Your task to perform on an android device: toggle translation in the chrome app Image 0: 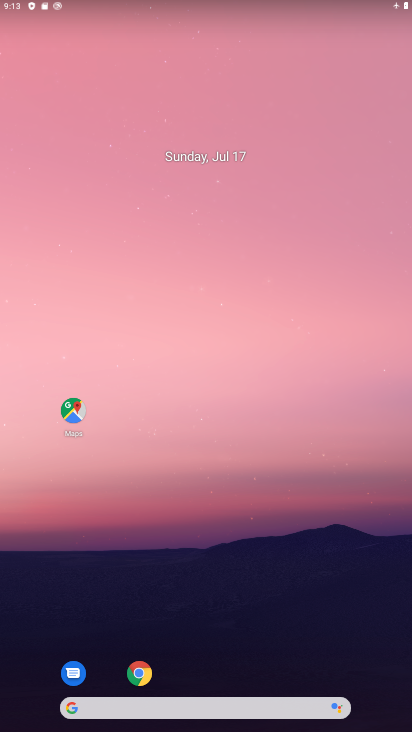
Step 0: click (140, 673)
Your task to perform on an android device: toggle translation in the chrome app Image 1: 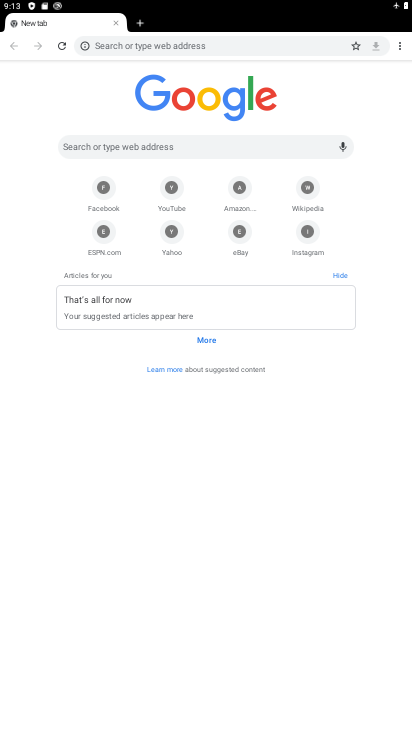
Step 1: click (403, 49)
Your task to perform on an android device: toggle translation in the chrome app Image 2: 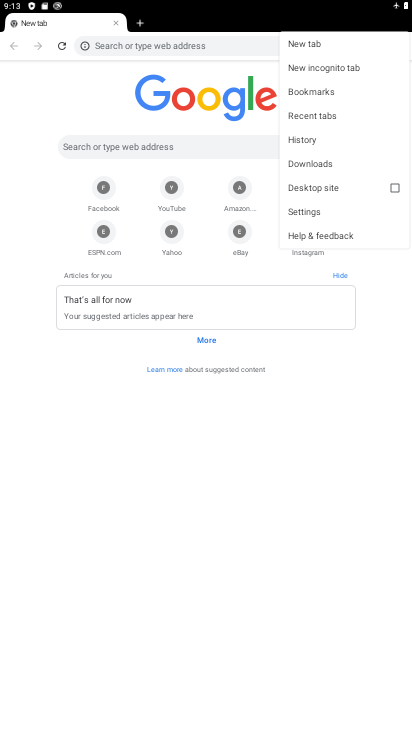
Step 2: click (301, 210)
Your task to perform on an android device: toggle translation in the chrome app Image 3: 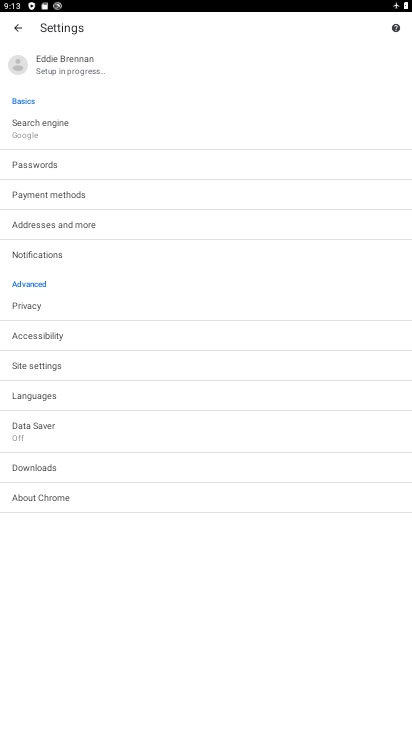
Step 3: click (17, 396)
Your task to perform on an android device: toggle translation in the chrome app Image 4: 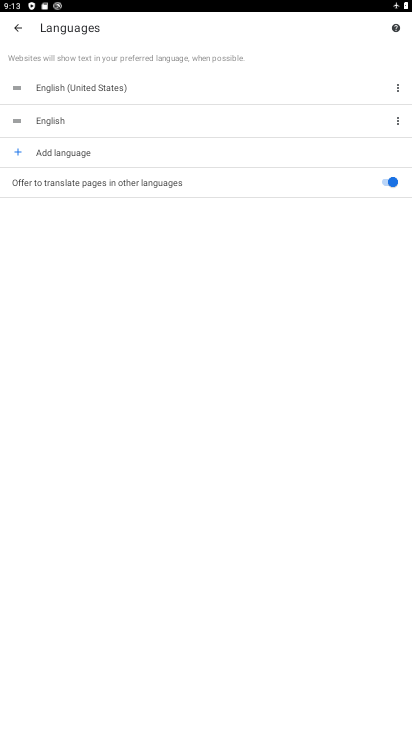
Step 4: click (386, 178)
Your task to perform on an android device: toggle translation in the chrome app Image 5: 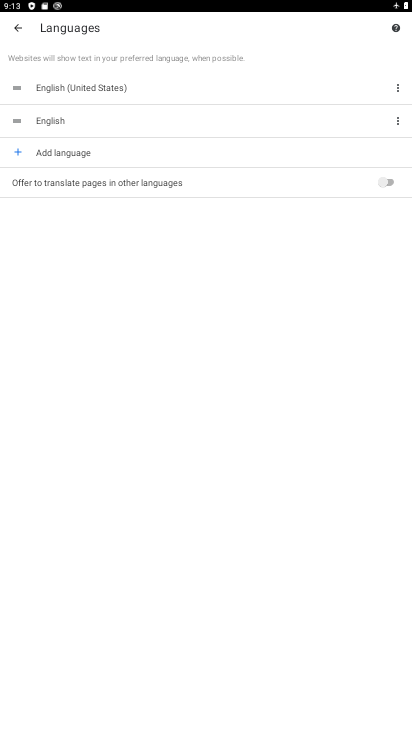
Step 5: task complete